Your task to perform on an android device: turn on javascript in the chrome app Image 0: 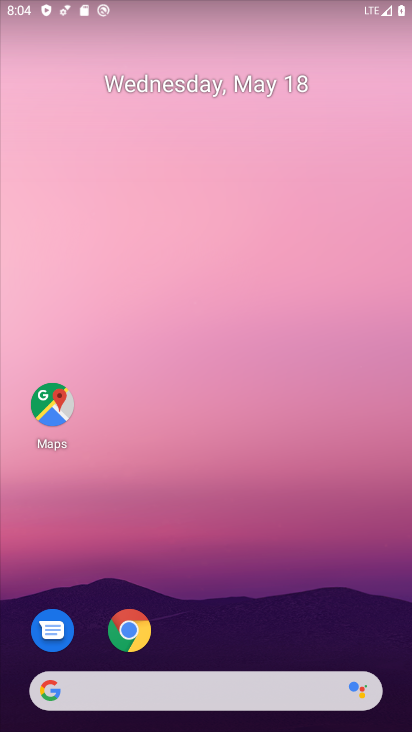
Step 0: press home button
Your task to perform on an android device: turn on javascript in the chrome app Image 1: 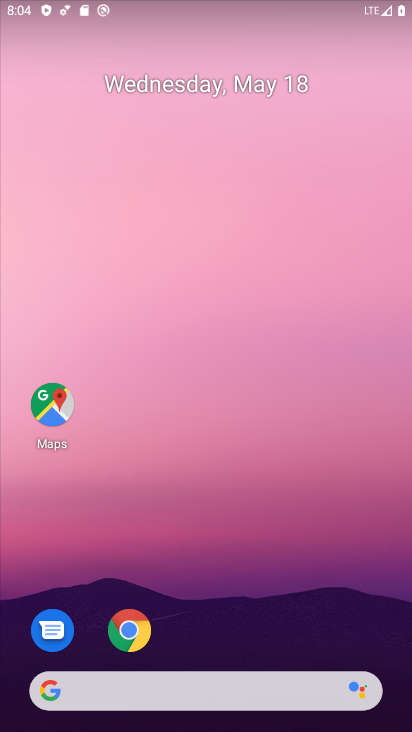
Step 1: click (131, 631)
Your task to perform on an android device: turn on javascript in the chrome app Image 2: 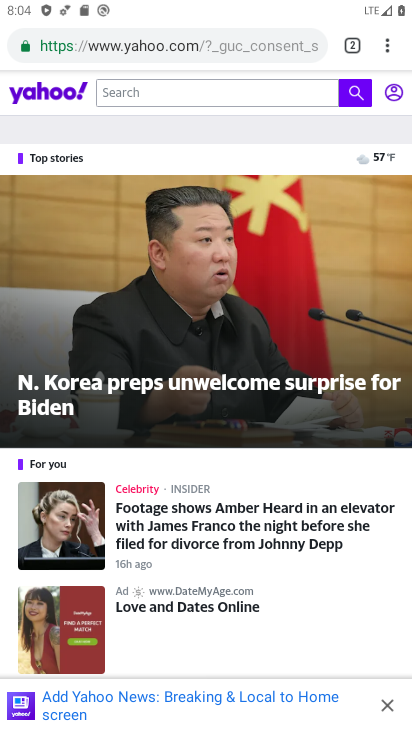
Step 2: drag from (389, 41) to (262, 558)
Your task to perform on an android device: turn on javascript in the chrome app Image 3: 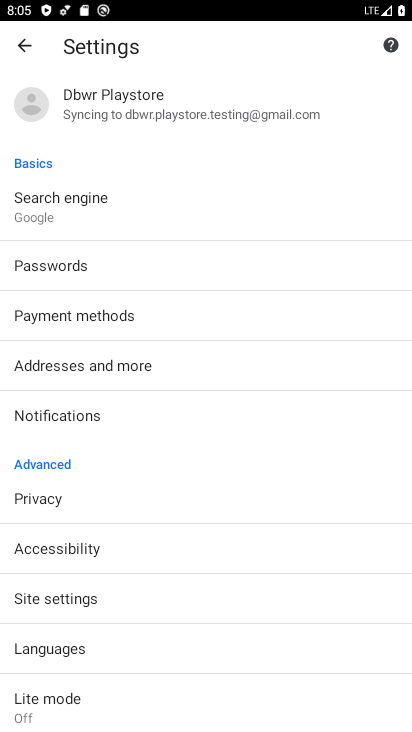
Step 3: click (82, 594)
Your task to perform on an android device: turn on javascript in the chrome app Image 4: 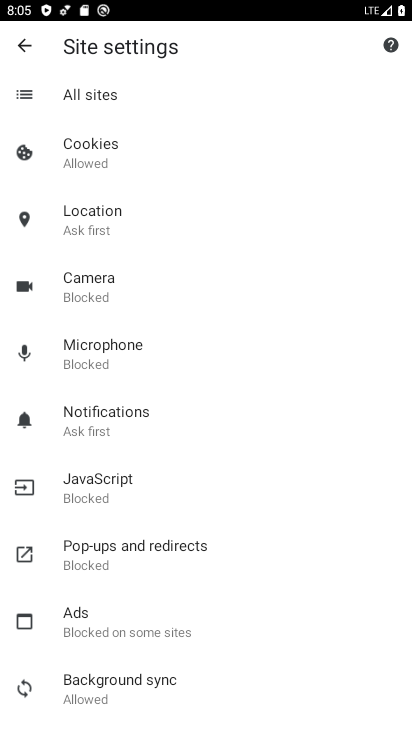
Step 4: click (94, 482)
Your task to perform on an android device: turn on javascript in the chrome app Image 5: 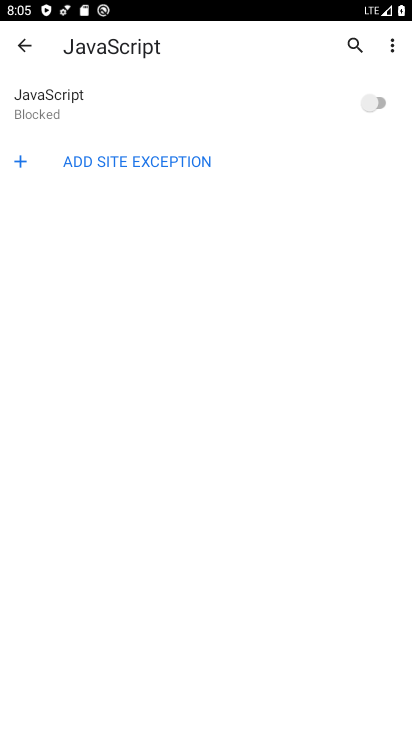
Step 5: click (376, 101)
Your task to perform on an android device: turn on javascript in the chrome app Image 6: 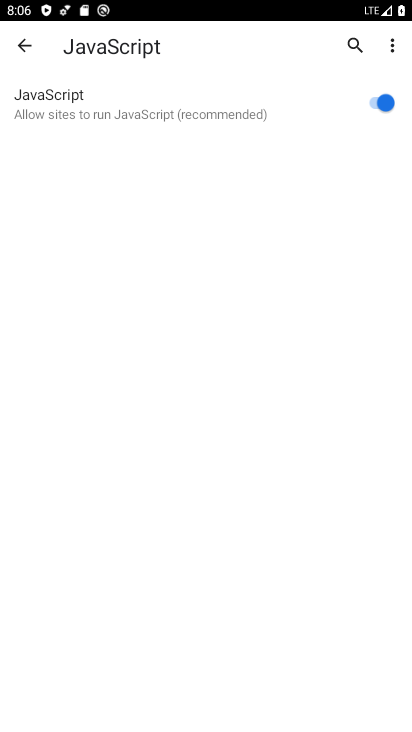
Step 6: task complete